Your task to perform on an android device: move an email to a new category in the gmail app Image 0: 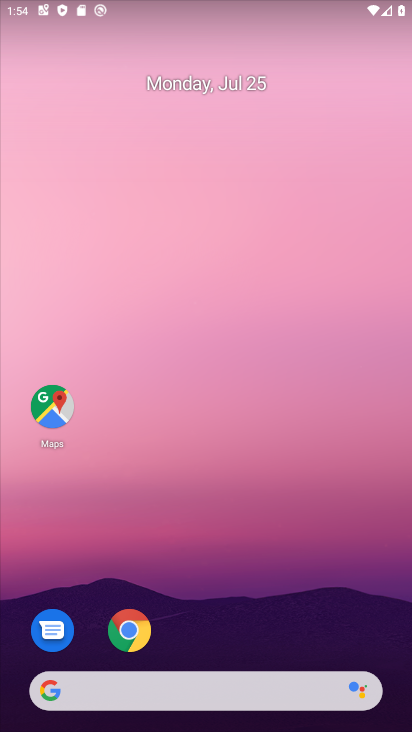
Step 0: drag from (206, 645) to (180, 290)
Your task to perform on an android device: move an email to a new category in the gmail app Image 1: 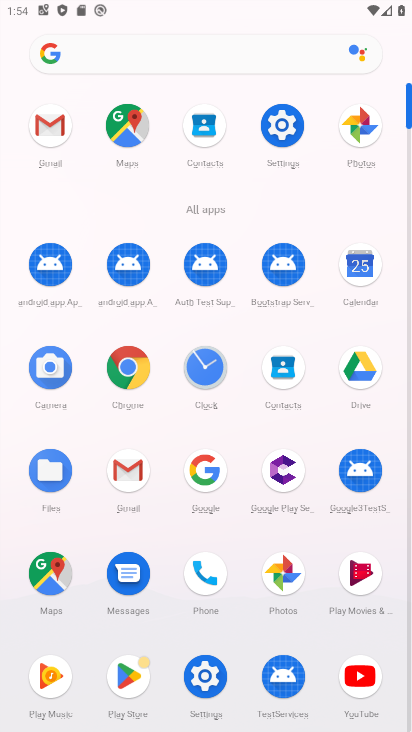
Step 1: click (57, 145)
Your task to perform on an android device: move an email to a new category in the gmail app Image 2: 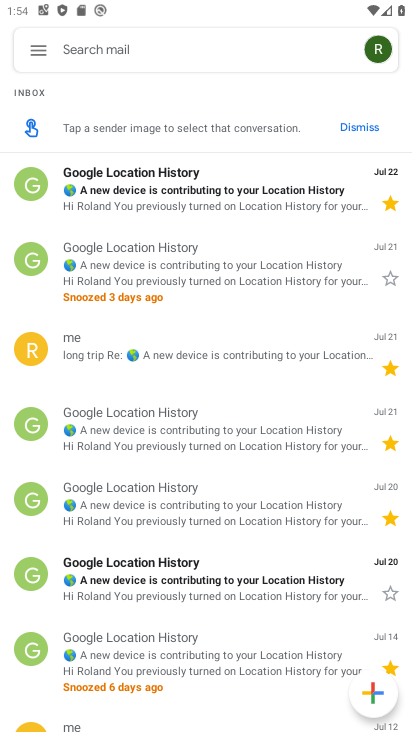
Step 2: click (215, 204)
Your task to perform on an android device: move an email to a new category in the gmail app Image 3: 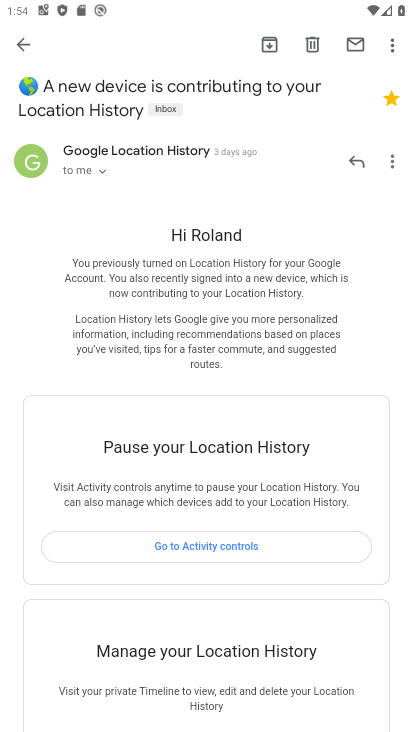
Step 3: click (401, 42)
Your task to perform on an android device: move an email to a new category in the gmail app Image 4: 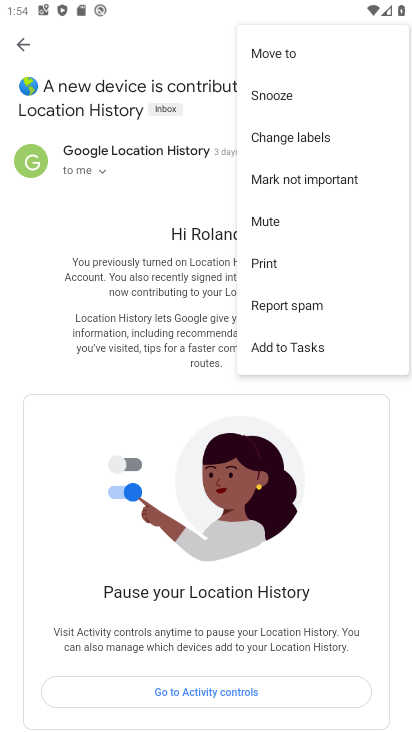
Step 4: click (299, 59)
Your task to perform on an android device: move an email to a new category in the gmail app Image 5: 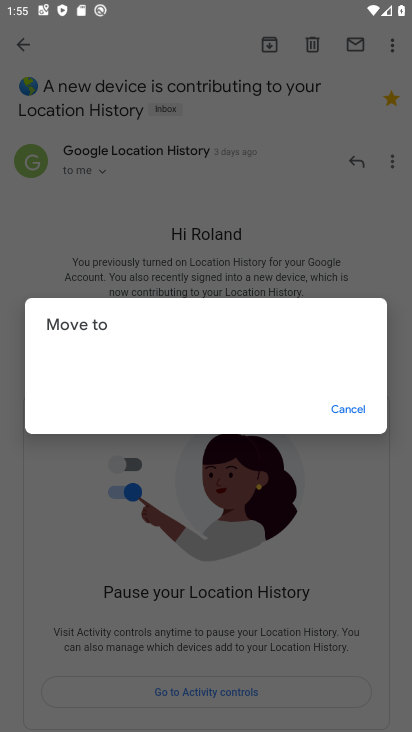
Step 5: click (354, 412)
Your task to perform on an android device: move an email to a new category in the gmail app Image 6: 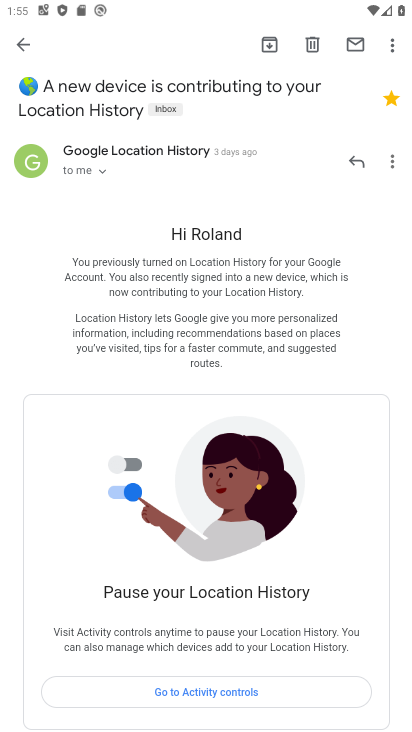
Step 6: task complete